Your task to perform on an android device: Go to Amazon Image 0: 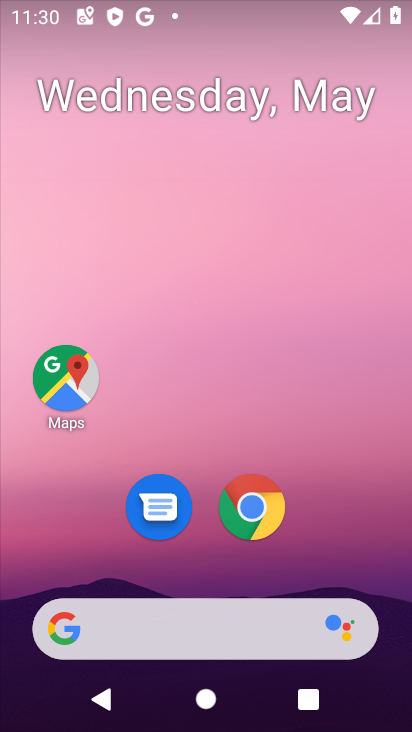
Step 0: press home button
Your task to perform on an android device: Go to Amazon Image 1: 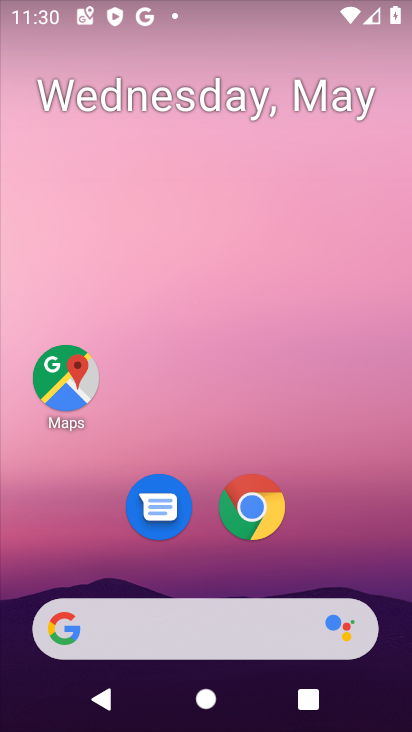
Step 1: click (249, 513)
Your task to perform on an android device: Go to Amazon Image 2: 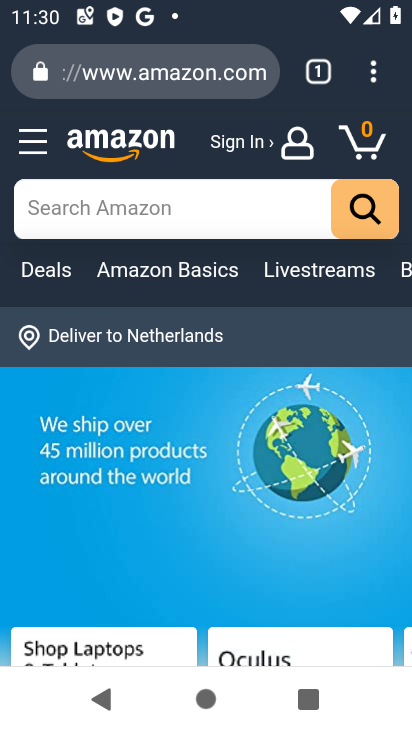
Step 2: click (215, 70)
Your task to perform on an android device: Go to Amazon Image 3: 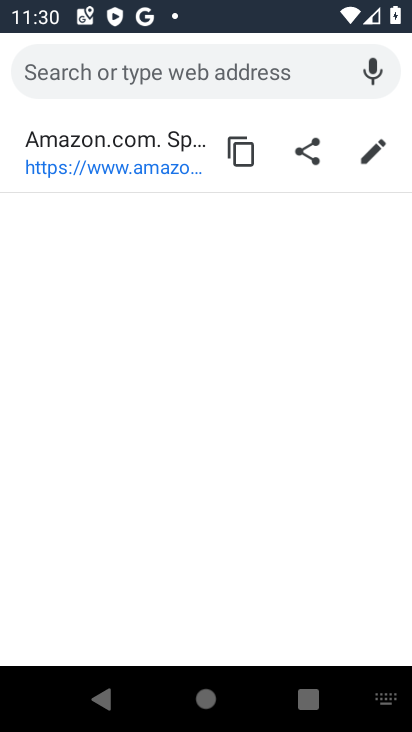
Step 3: type "Amazon"
Your task to perform on an android device: Go to Amazon Image 4: 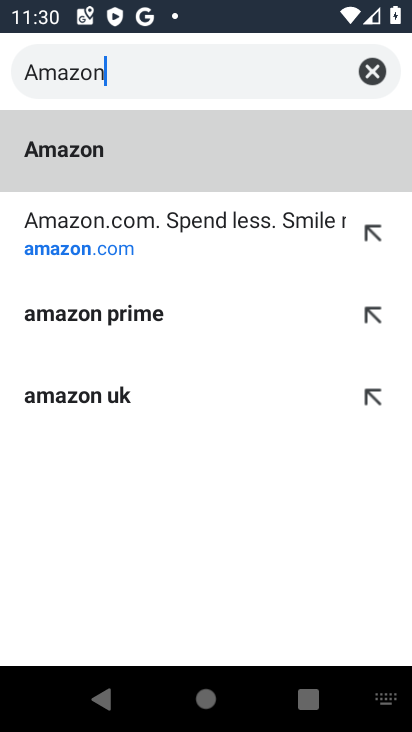
Step 4: type ""
Your task to perform on an android device: Go to Amazon Image 5: 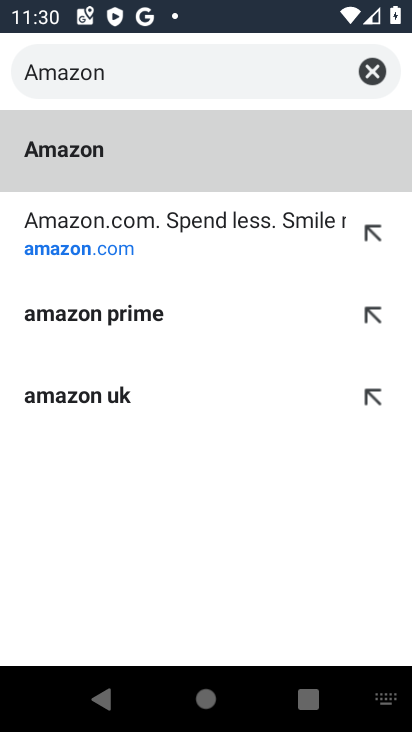
Step 5: click (212, 137)
Your task to perform on an android device: Go to Amazon Image 6: 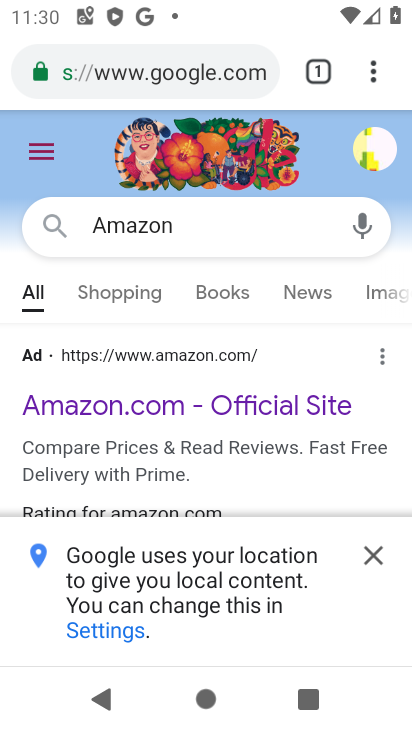
Step 6: click (200, 405)
Your task to perform on an android device: Go to Amazon Image 7: 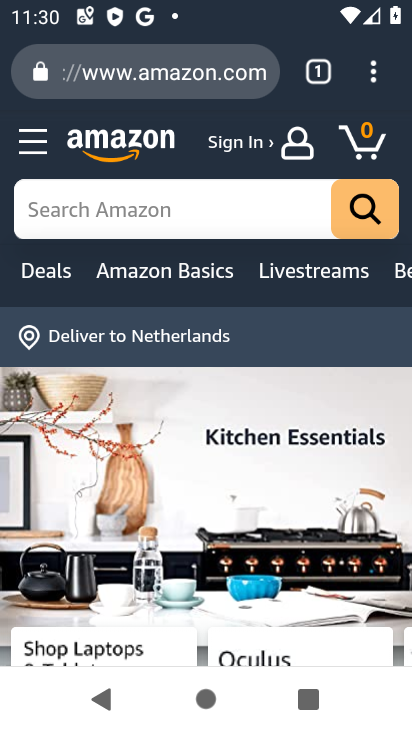
Step 7: task complete